Your task to perform on an android device: change notifications settings Image 0: 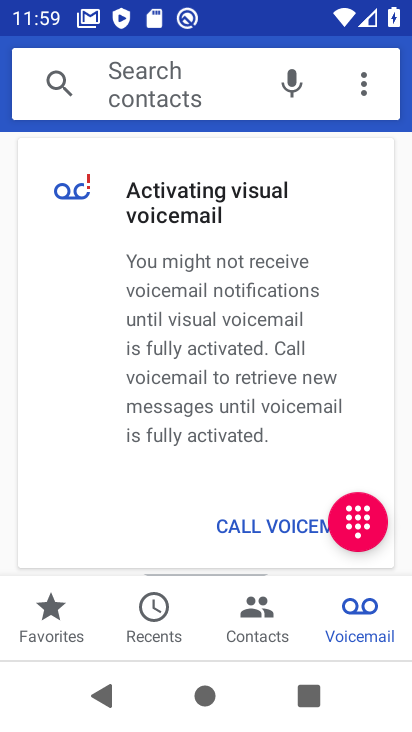
Step 0: press back button
Your task to perform on an android device: change notifications settings Image 1: 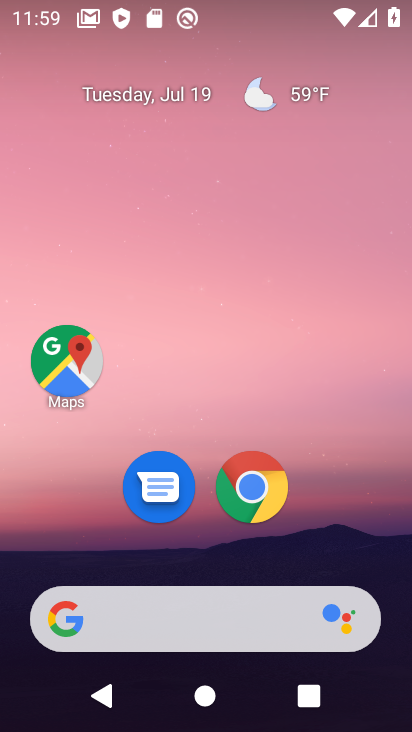
Step 1: drag from (109, 564) to (192, 0)
Your task to perform on an android device: change notifications settings Image 2: 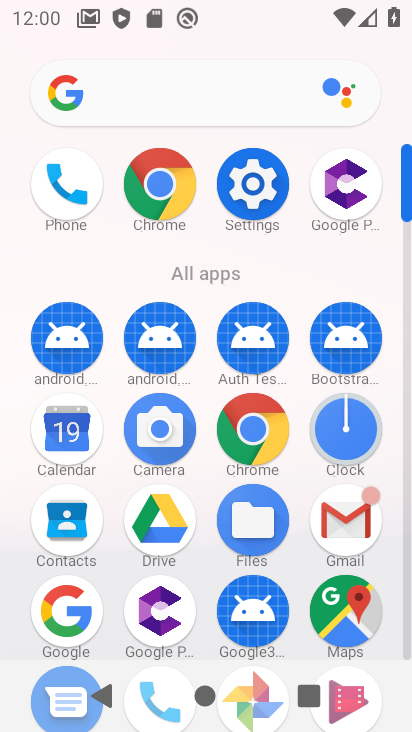
Step 2: click (276, 207)
Your task to perform on an android device: change notifications settings Image 3: 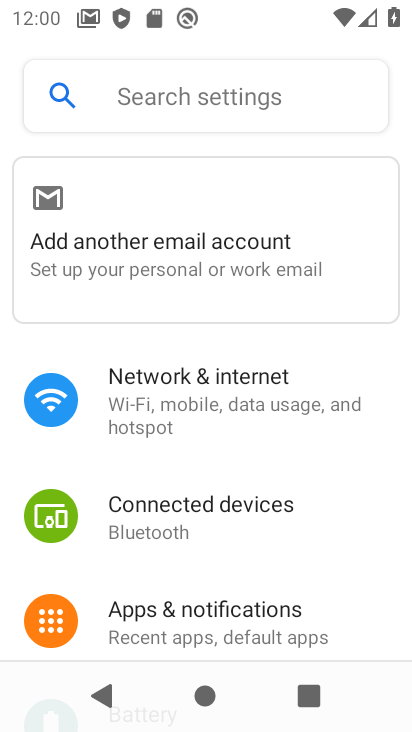
Step 3: click (163, 617)
Your task to perform on an android device: change notifications settings Image 4: 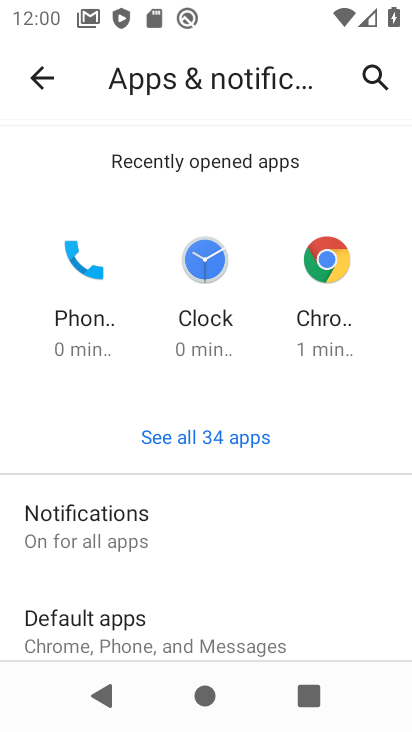
Step 4: click (121, 523)
Your task to perform on an android device: change notifications settings Image 5: 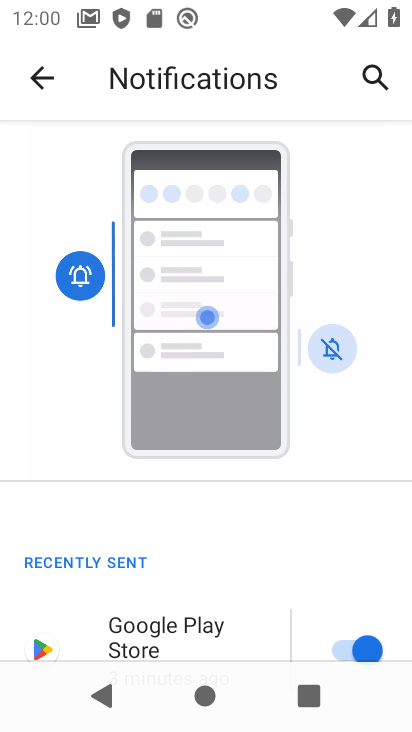
Step 5: drag from (167, 608) to (243, 201)
Your task to perform on an android device: change notifications settings Image 6: 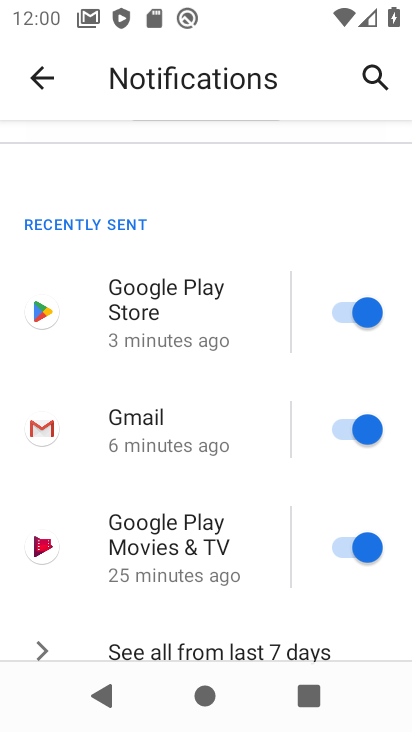
Step 6: drag from (293, 622) to (279, 97)
Your task to perform on an android device: change notifications settings Image 7: 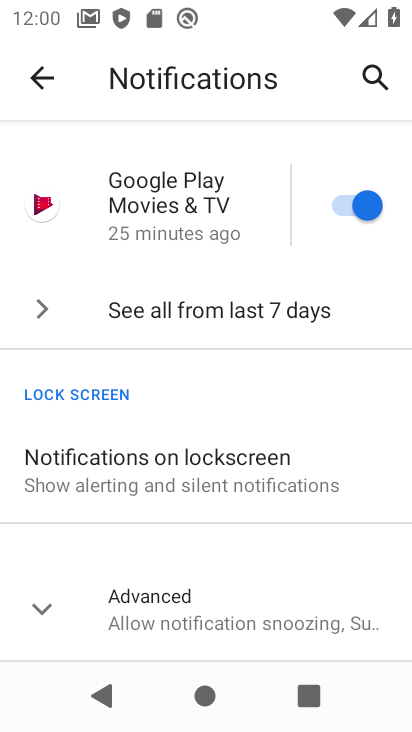
Step 7: click (230, 595)
Your task to perform on an android device: change notifications settings Image 8: 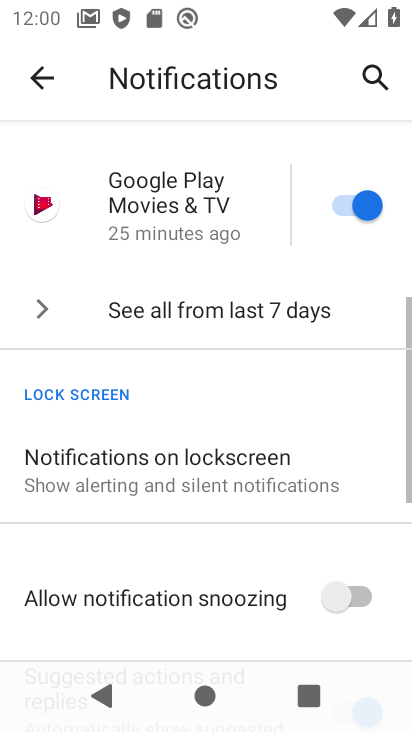
Step 8: drag from (229, 595) to (227, 208)
Your task to perform on an android device: change notifications settings Image 9: 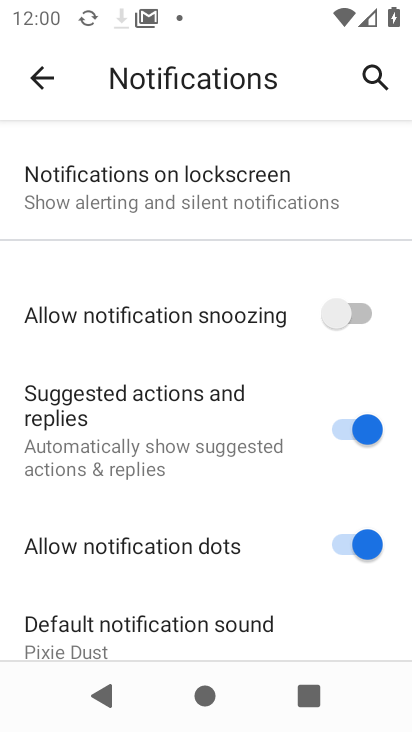
Step 9: click (325, 306)
Your task to perform on an android device: change notifications settings Image 10: 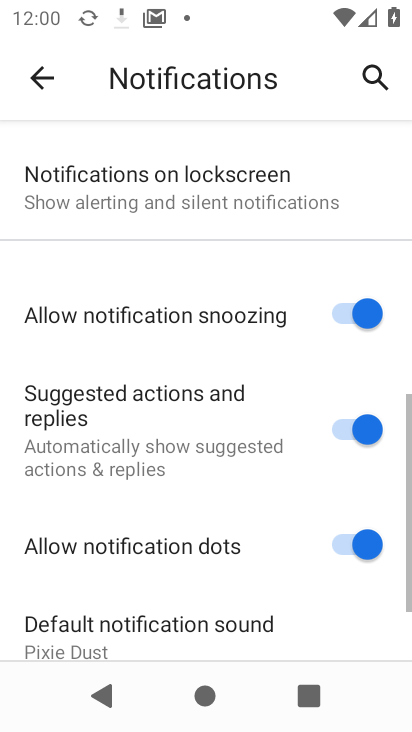
Step 10: task complete